Your task to perform on an android device: change the clock display to show seconds Image 0: 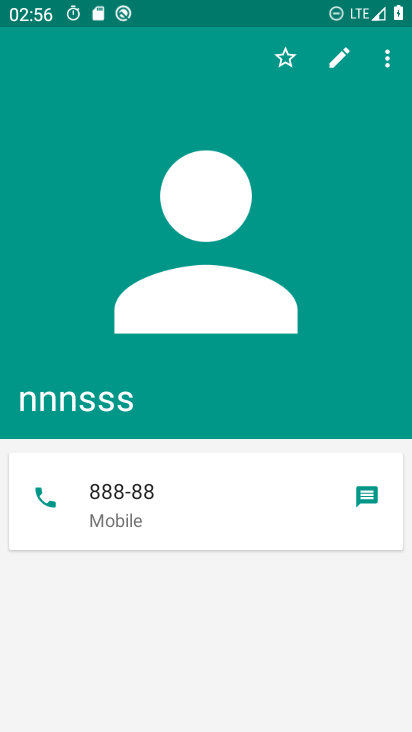
Step 0: press home button
Your task to perform on an android device: change the clock display to show seconds Image 1: 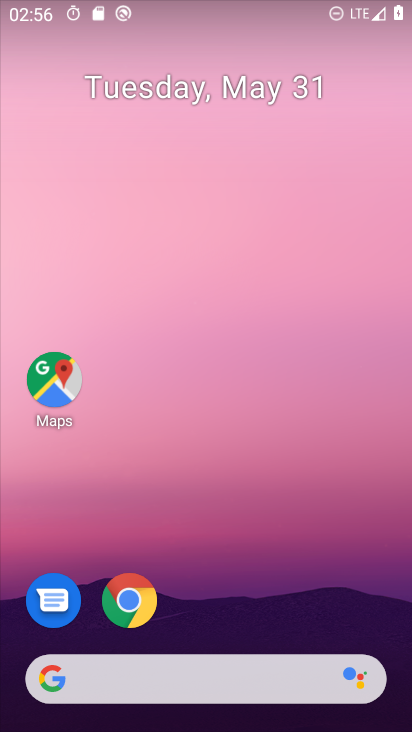
Step 1: drag from (214, 707) to (185, 101)
Your task to perform on an android device: change the clock display to show seconds Image 2: 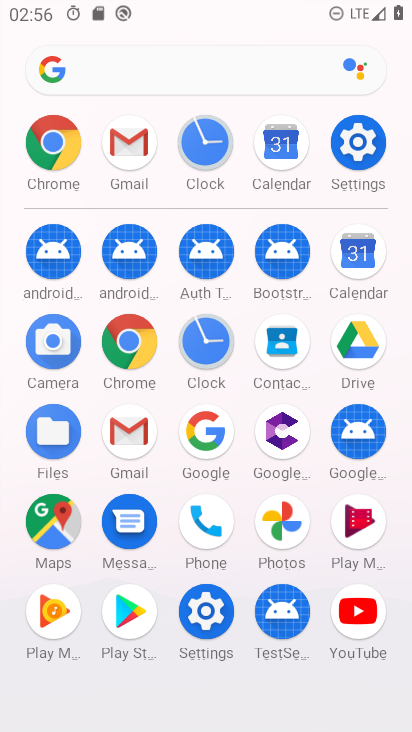
Step 2: click (208, 342)
Your task to perform on an android device: change the clock display to show seconds Image 3: 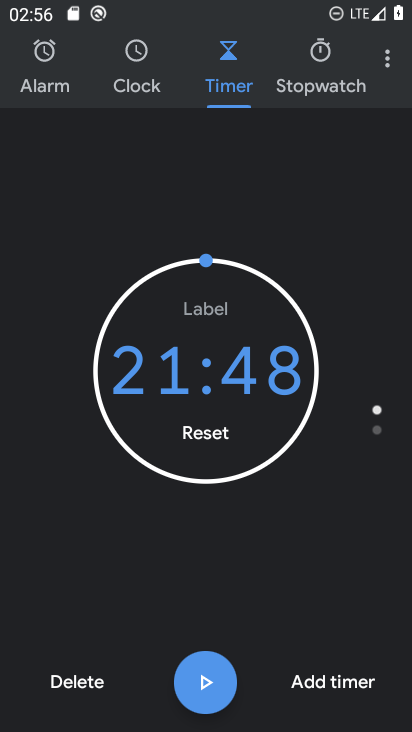
Step 3: click (388, 63)
Your task to perform on an android device: change the clock display to show seconds Image 4: 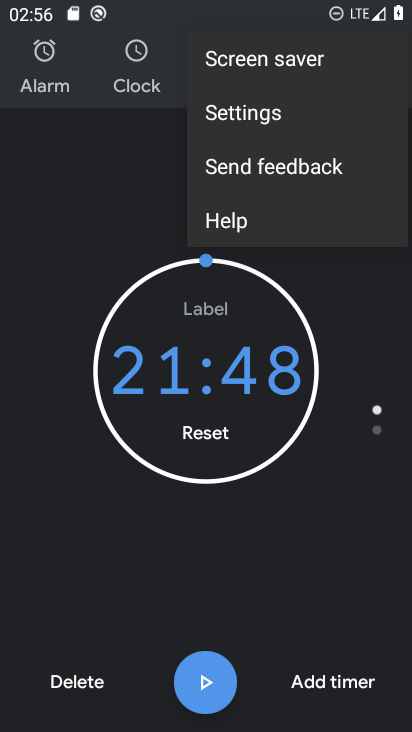
Step 4: click (229, 114)
Your task to perform on an android device: change the clock display to show seconds Image 5: 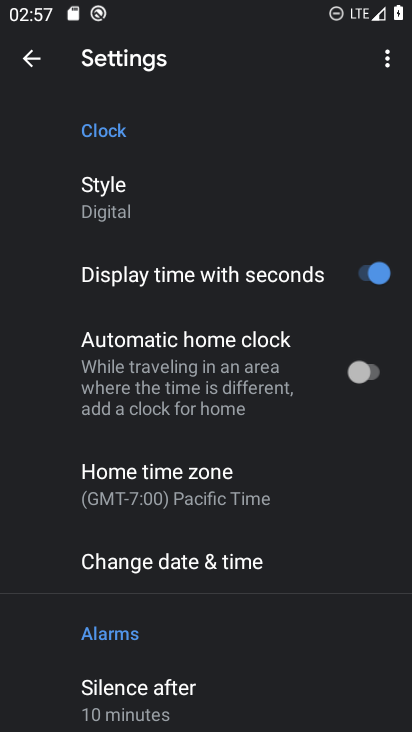
Step 5: task complete